Your task to perform on an android device: turn on sleep mode Image 0: 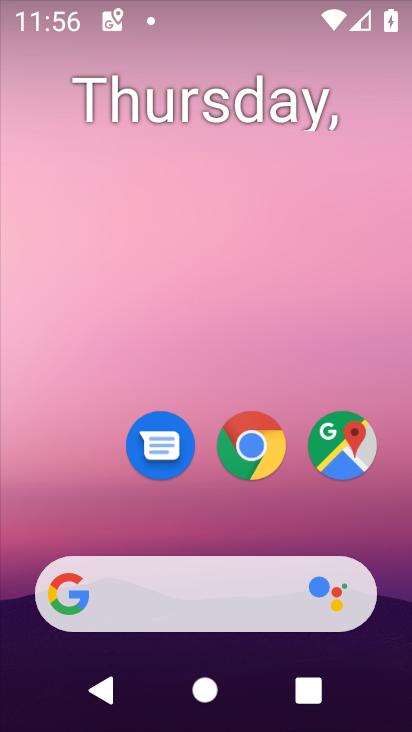
Step 0: drag from (253, 694) to (161, 163)
Your task to perform on an android device: turn on sleep mode Image 1: 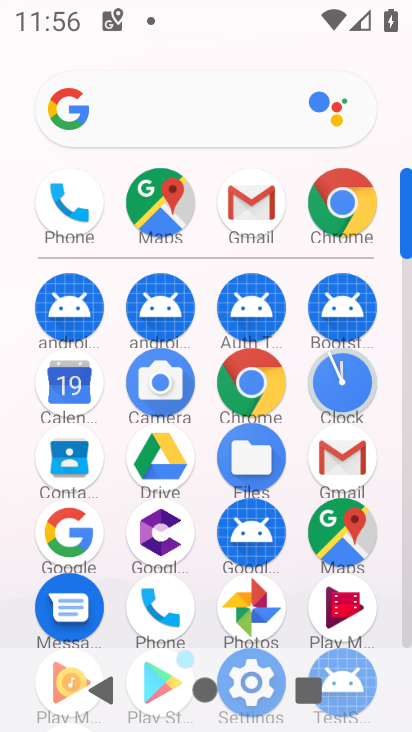
Step 1: drag from (293, 523) to (285, 291)
Your task to perform on an android device: turn on sleep mode Image 2: 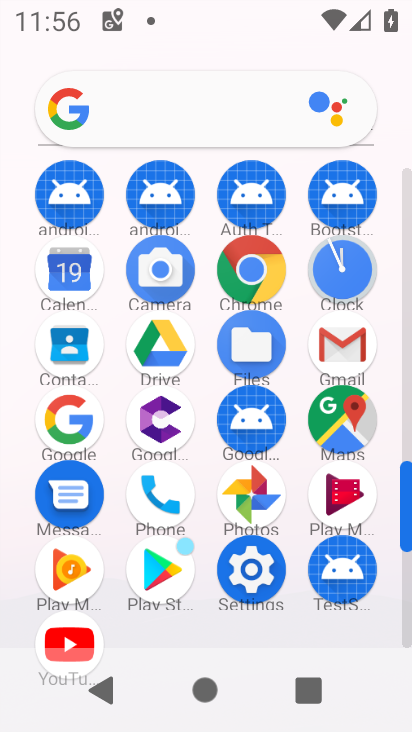
Step 2: drag from (265, 549) to (248, 238)
Your task to perform on an android device: turn on sleep mode Image 3: 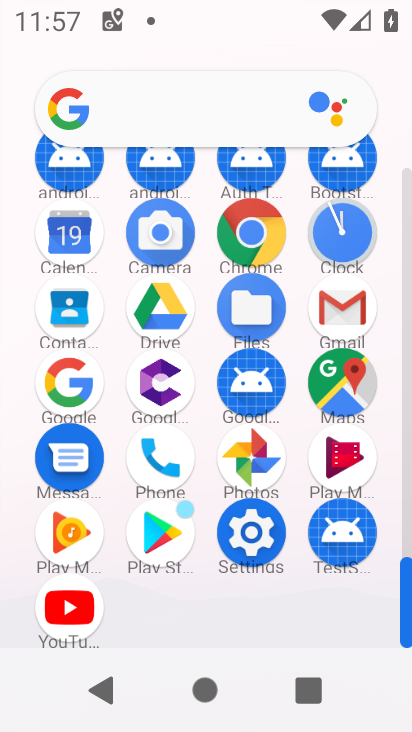
Step 3: click (254, 539)
Your task to perform on an android device: turn on sleep mode Image 4: 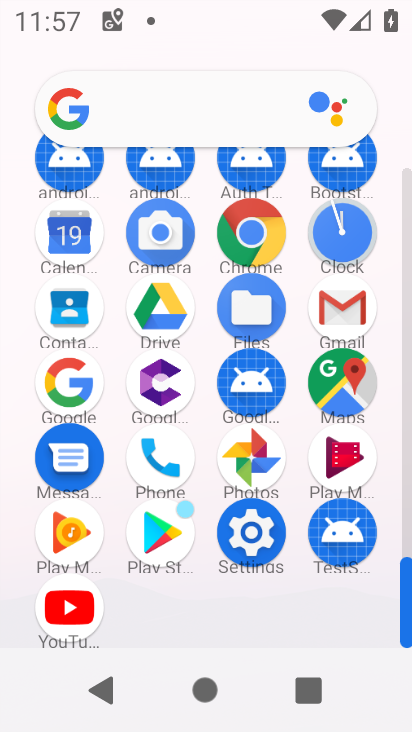
Step 4: click (254, 539)
Your task to perform on an android device: turn on sleep mode Image 5: 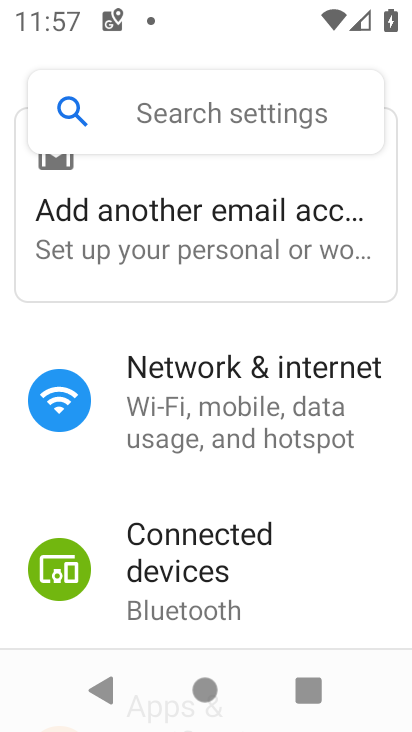
Step 5: drag from (180, 459) to (204, 250)
Your task to perform on an android device: turn on sleep mode Image 6: 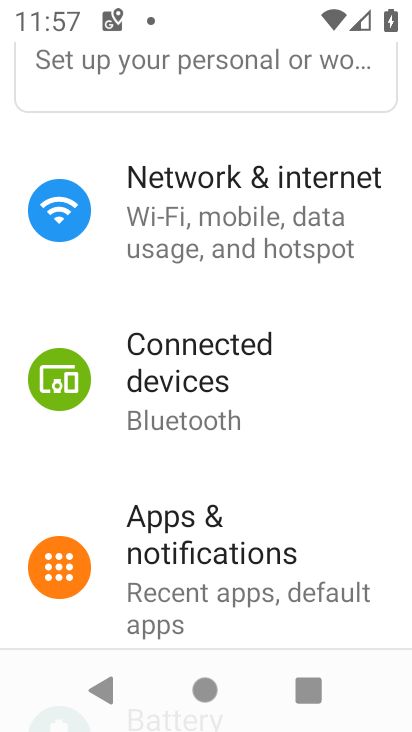
Step 6: drag from (199, 395) to (193, 146)
Your task to perform on an android device: turn on sleep mode Image 7: 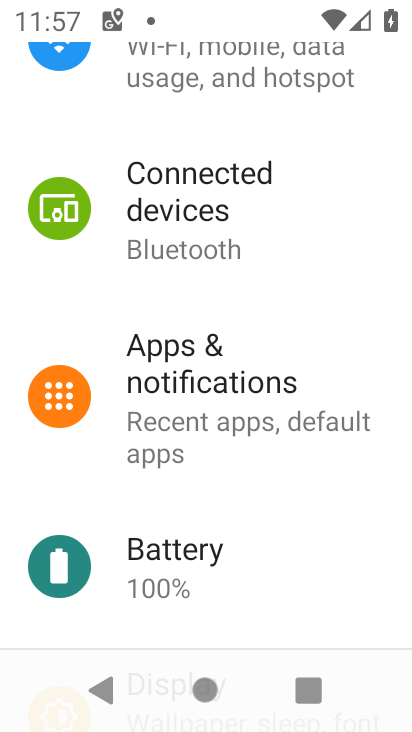
Step 7: click (165, 80)
Your task to perform on an android device: turn on sleep mode Image 8: 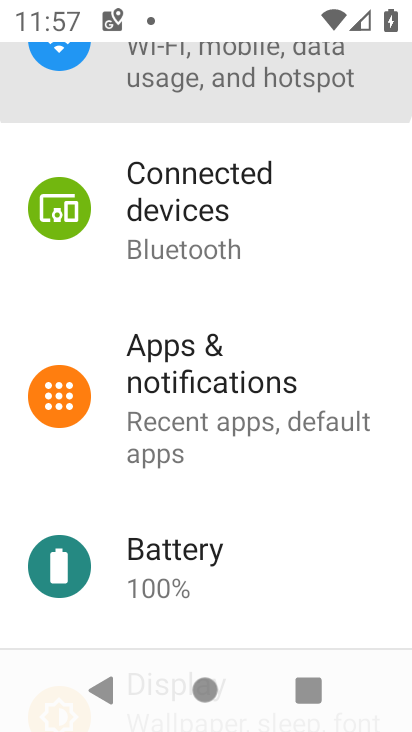
Step 8: drag from (195, 368) to (167, 60)
Your task to perform on an android device: turn on sleep mode Image 9: 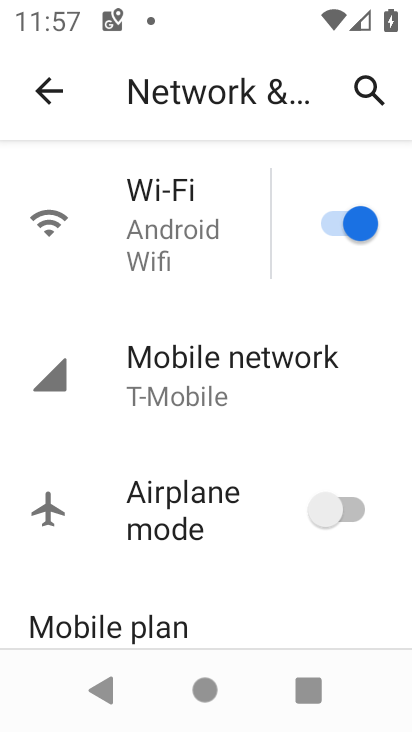
Step 9: drag from (204, 331) to (220, 160)
Your task to perform on an android device: turn on sleep mode Image 10: 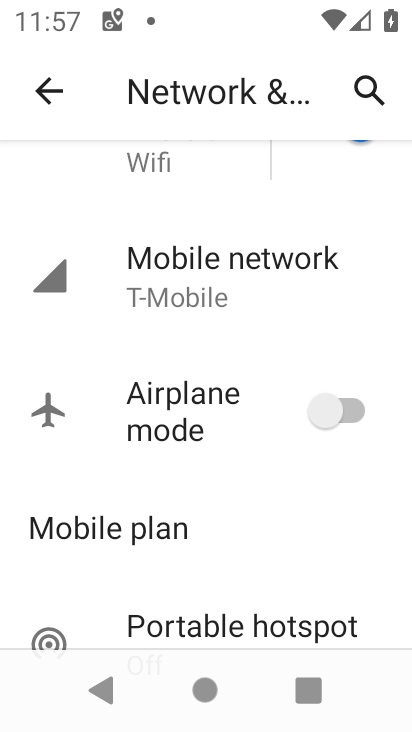
Step 10: drag from (233, 499) to (197, 207)
Your task to perform on an android device: turn on sleep mode Image 11: 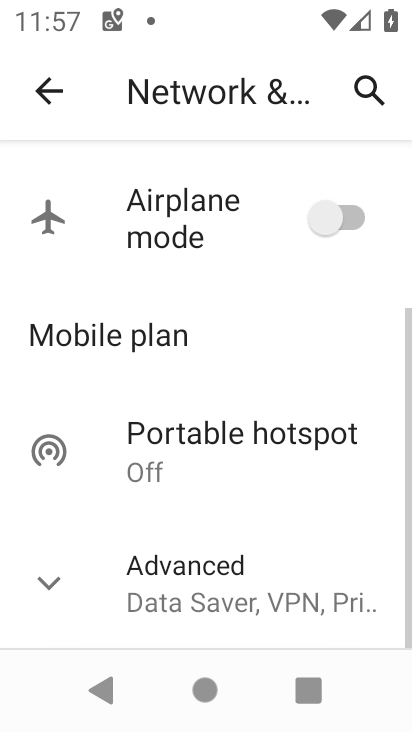
Step 11: drag from (197, 504) to (203, 207)
Your task to perform on an android device: turn on sleep mode Image 12: 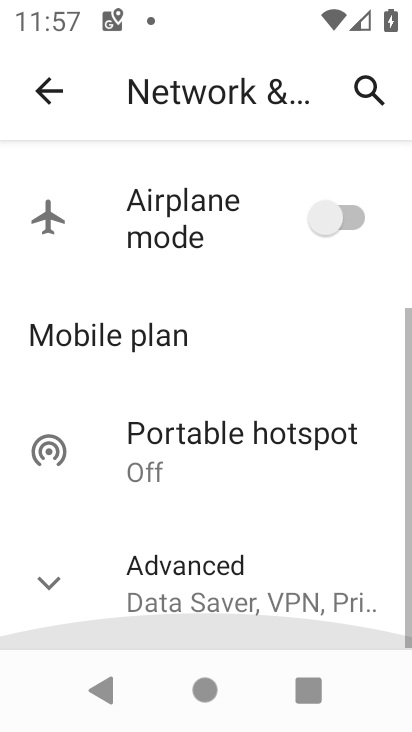
Step 12: drag from (196, 525) to (174, 239)
Your task to perform on an android device: turn on sleep mode Image 13: 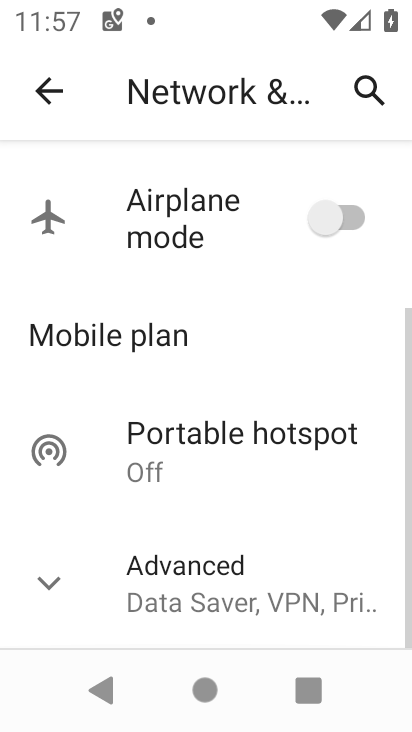
Step 13: drag from (230, 447) to (230, 262)
Your task to perform on an android device: turn on sleep mode Image 14: 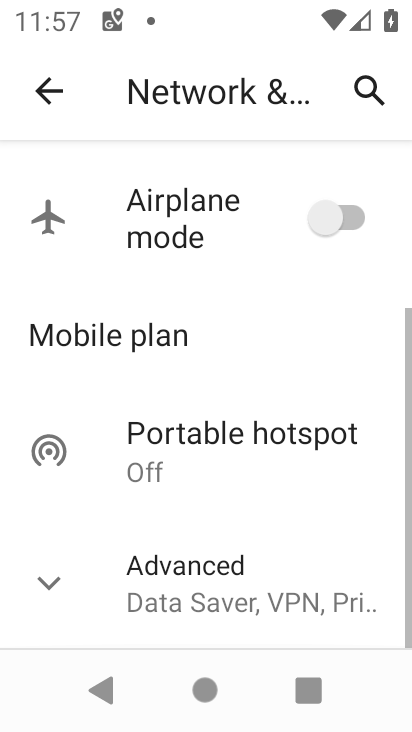
Step 14: drag from (169, 581) to (185, 249)
Your task to perform on an android device: turn on sleep mode Image 15: 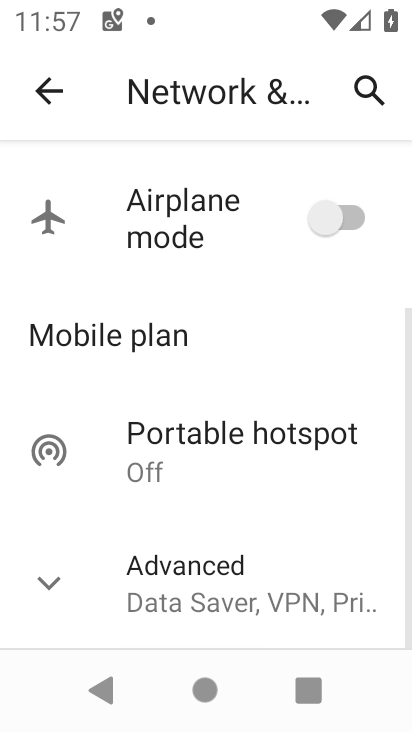
Step 15: click (56, 91)
Your task to perform on an android device: turn on sleep mode Image 16: 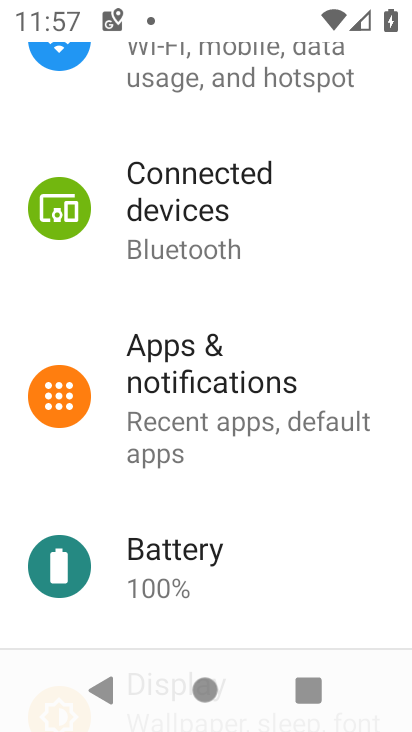
Step 16: drag from (216, 387) to (254, 129)
Your task to perform on an android device: turn on sleep mode Image 17: 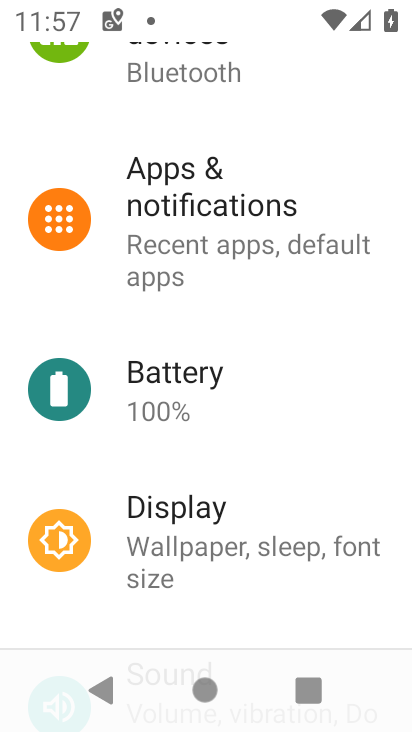
Step 17: drag from (212, 370) to (164, 150)
Your task to perform on an android device: turn on sleep mode Image 18: 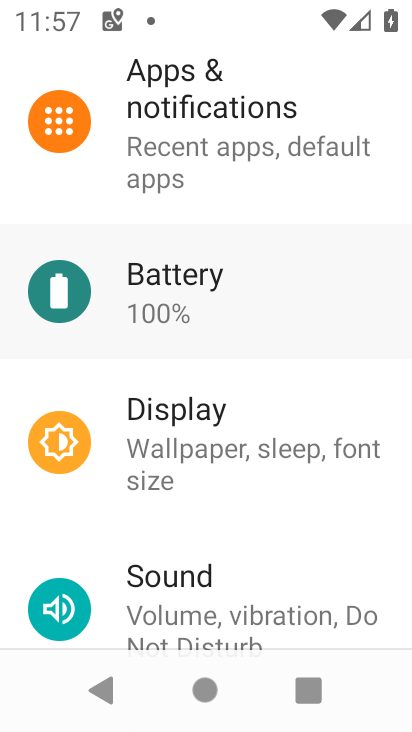
Step 18: drag from (186, 439) to (186, 164)
Your task to perform on an android device: turn on sleep mode Image 19: 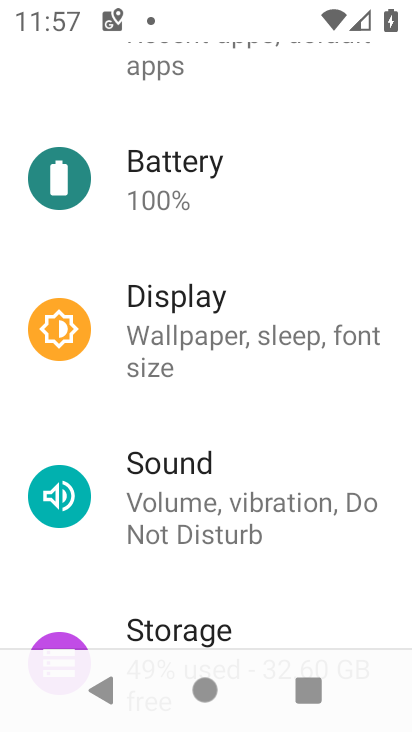
Step 19: drag from (182, 443) to (191, 145)
Your task to perform on an android device: turn on sleep mode Image 20: 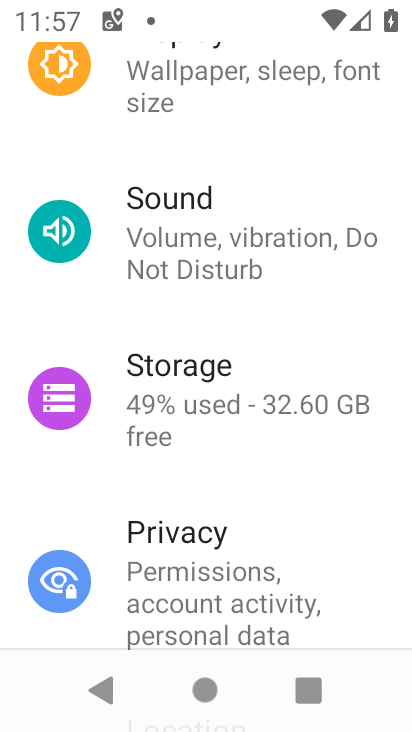
Step 20: click (296, 86)
Your task to perform on an android device: turn on sleep mode Image 21: 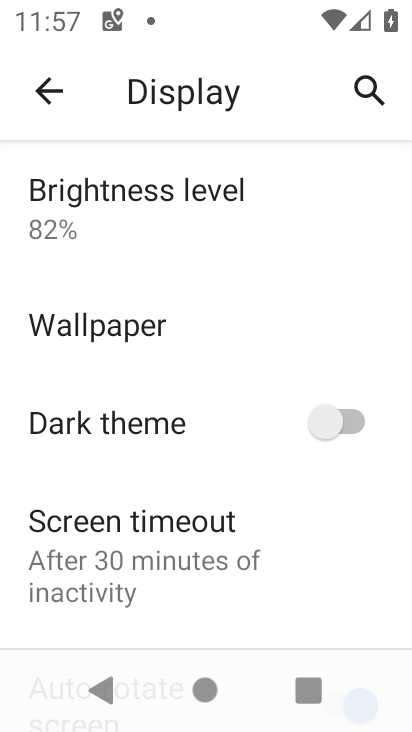
Step 21: click (37, 72)
Your task to perform on an android device: turn on sleep mode Image 22: 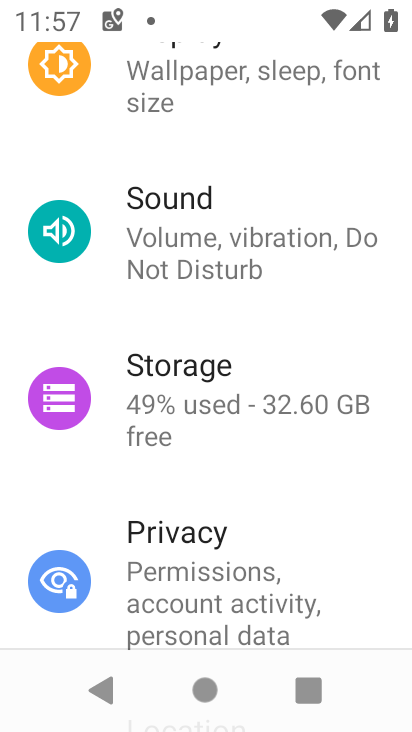
Step 22: drag from (199, 197) to (215, 464)
Your task to perform on an android device: turn on sleep mode Image 23: 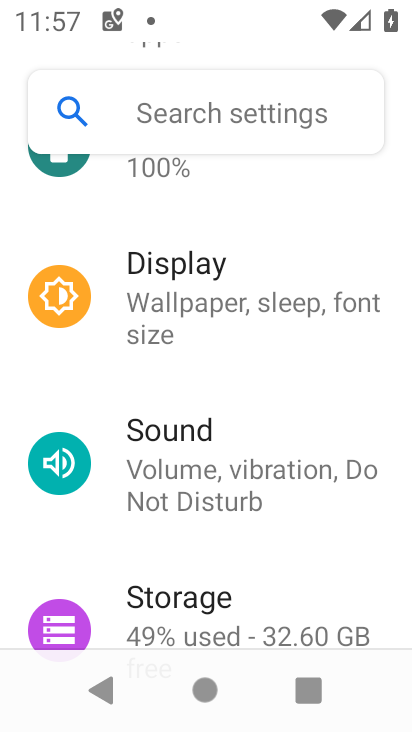
Step 23: click (194, 279)
Your task to perform on an android device: turn on sleep mode Image 24: 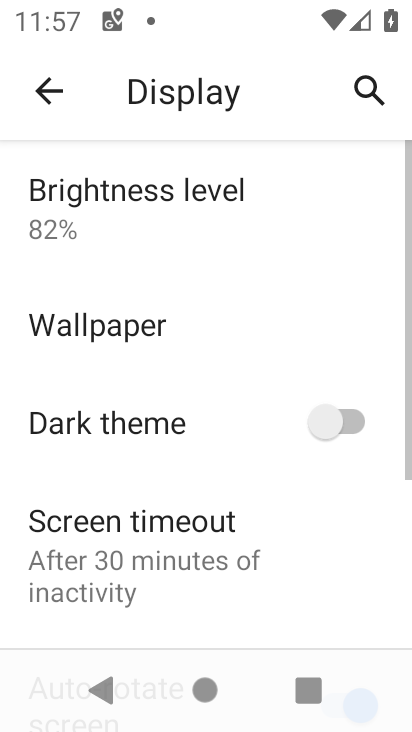
Step 24: drag from (195, 473) to (188, 145)
Your task to perform on an android device: turn on sleep mode Image 25: 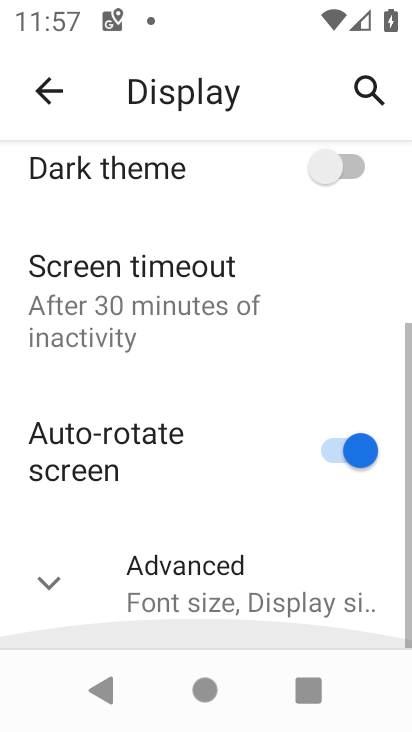
Step 25: drag from (173, 399) to (183, 221)
Your task to perform on an android device: turn on sleep mode Image 26: 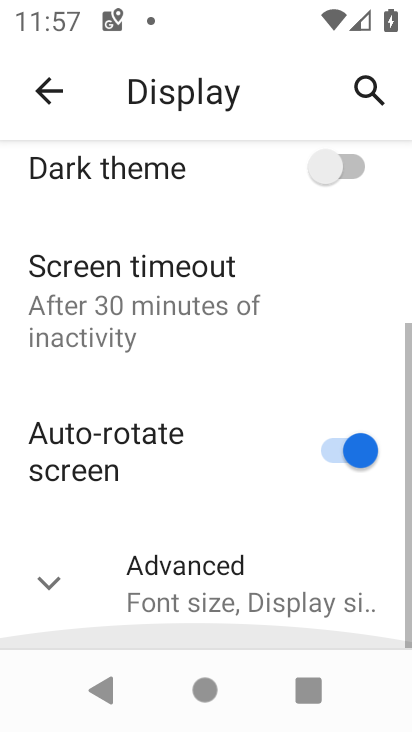
Step 26: drag from (168, 436) to (189, 151)
Your task to perform on an android device: turn on sleep mode Image 27: 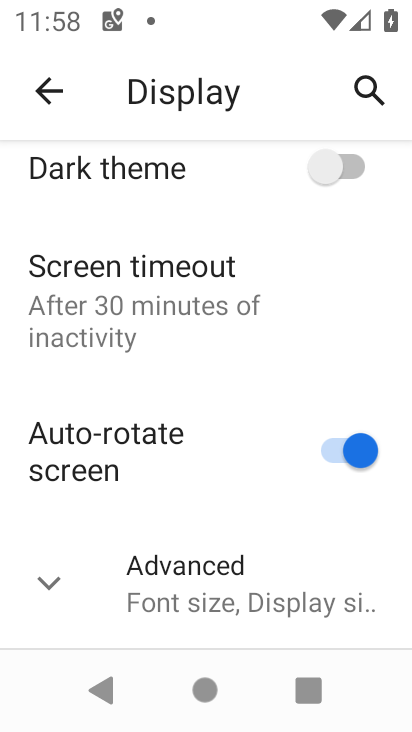
Step 27: click (117, 301)
Your task to perform on an android device: turn on sleep mode Image 28: 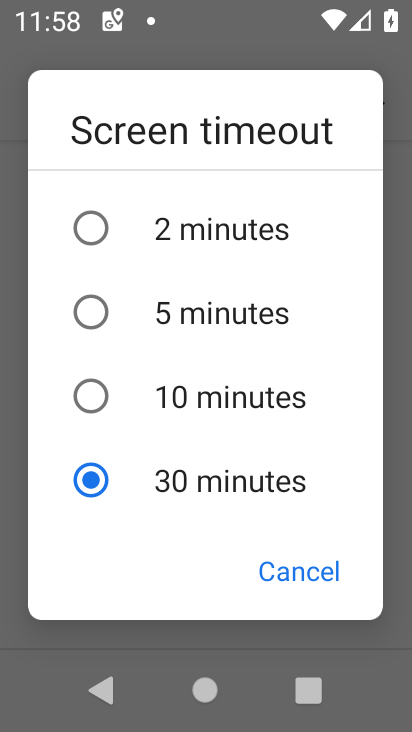
Step 28: click (301, 590)
Your task to perform on an android device: turn on sleep mode Image 29: 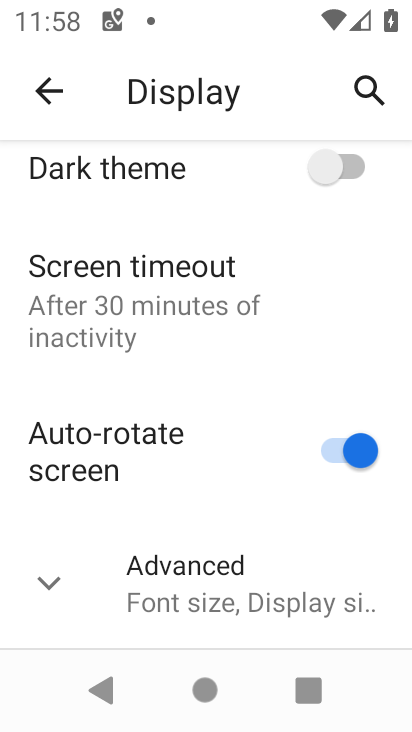
Step 29: task complete